Your task to perform on an android device: toggle airplane mode Image 0: 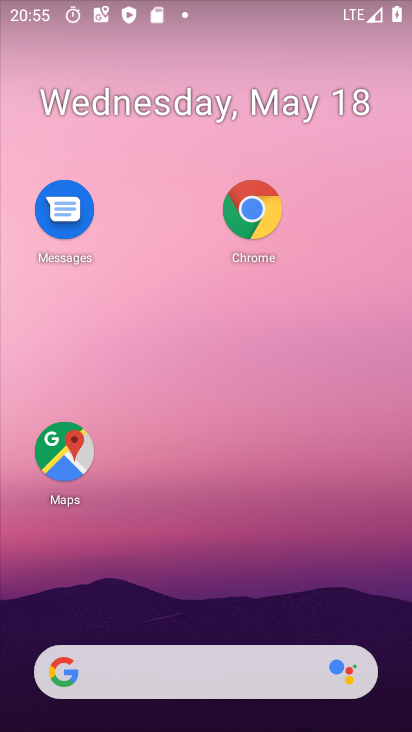
Step 0: drag from (252, 10) to (264, 575)
Your task to perform on an android device: toggle airplane mode Image 1: 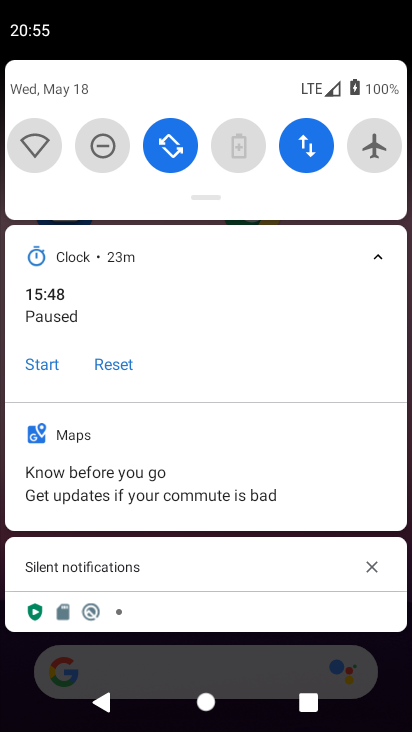
Step 1: click (368, 144)
Your task to perform on an android device: toggle airplane mode Image 2: 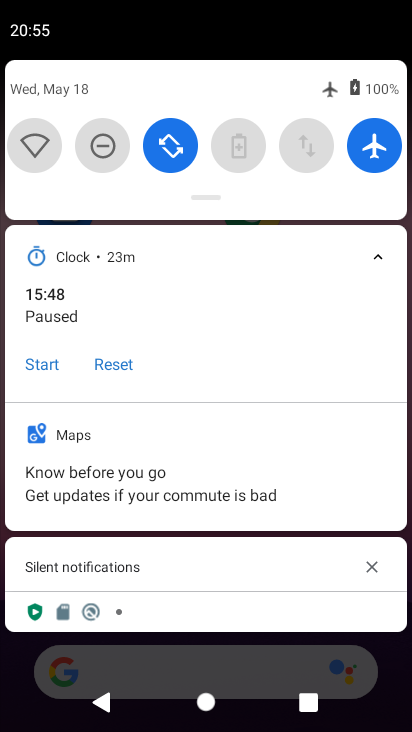
Step 2: click (368, 144)
Your task to perform on an android device: toggle airplane mode Image 3: 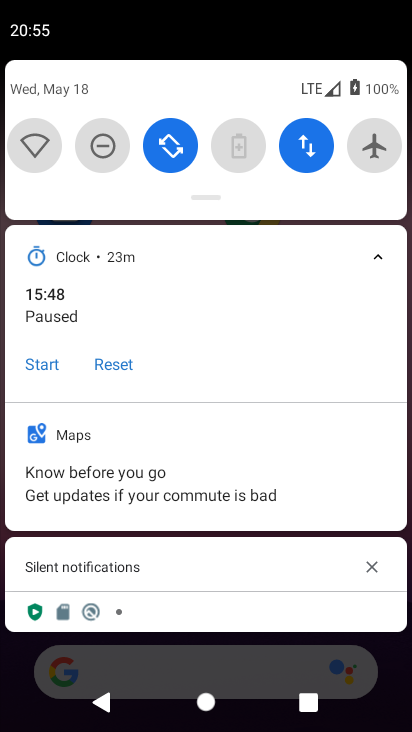
Step 3: click (368, 144)
Your task to perform on an android device: toggle airplane mode Image 4: 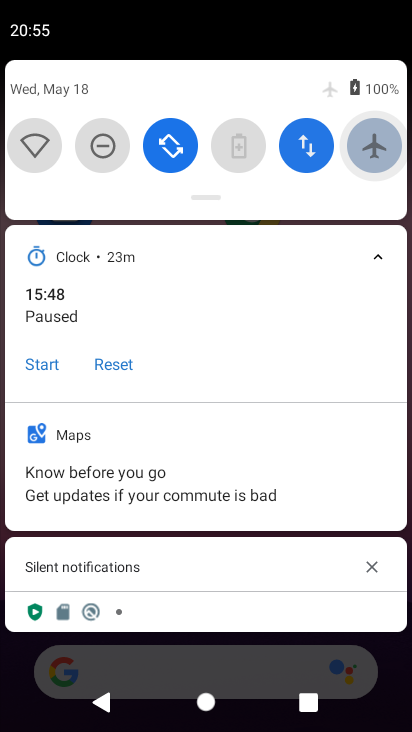
Step 4: click (368, 144)
Your task to perform on an android device: toggle airplane mode Image 5: 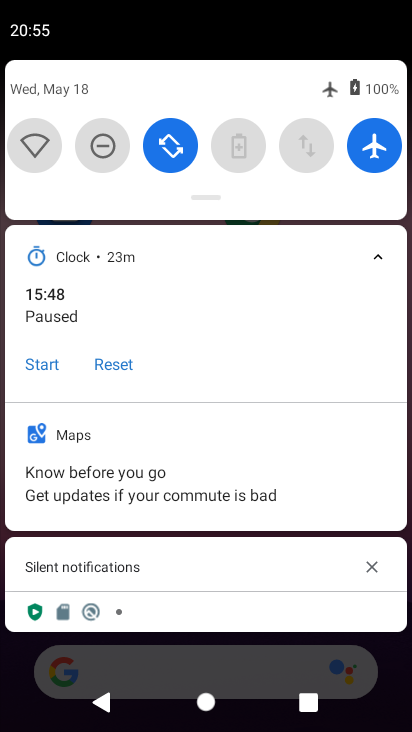
Step 5: click (368, 144)
Your task to perform on an android device: toggle airplane mode Image 6: 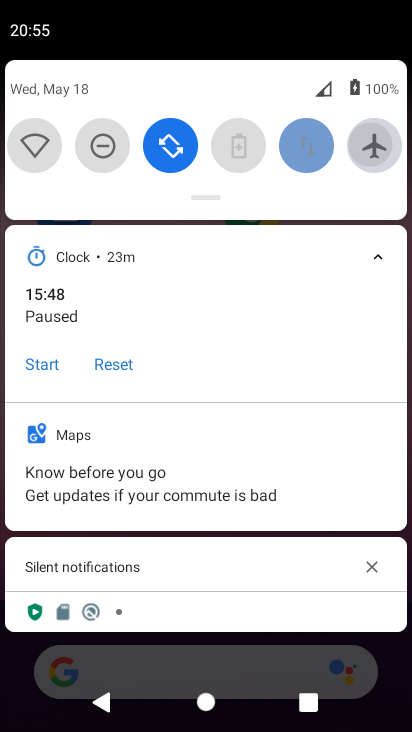
Step 6: click (368, 144)
Your task to perform on an android device: toggle airplane mode Image 7: 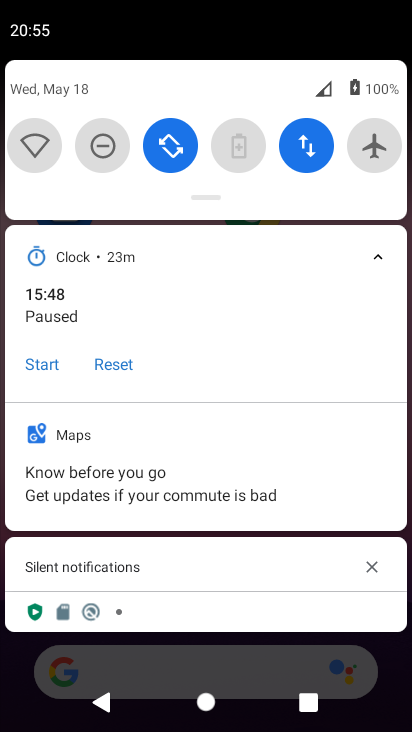
Step 7: click (368, 144)
Your task to perform on an android device: toggle airplane mode Image 8: 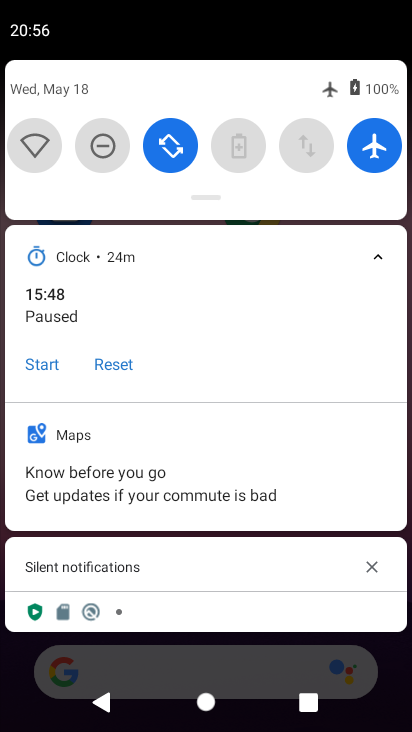
Step 8: click (368, 144)
Your task to perform on an android device: toggle airplane mode Image 9: 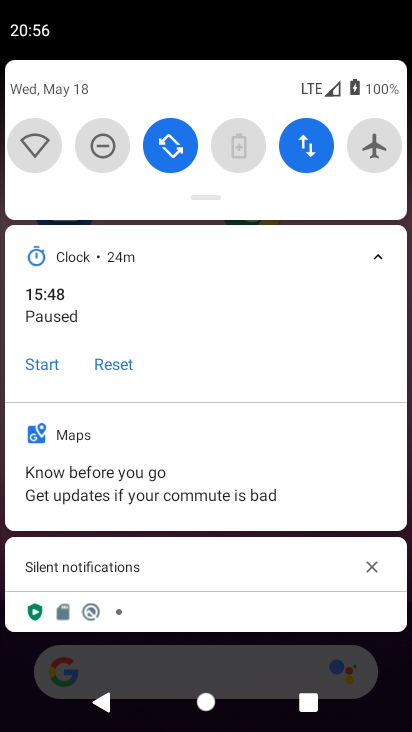
Step 9: task complete